Your task to perform on an android device: Go to Android settings Image 0: 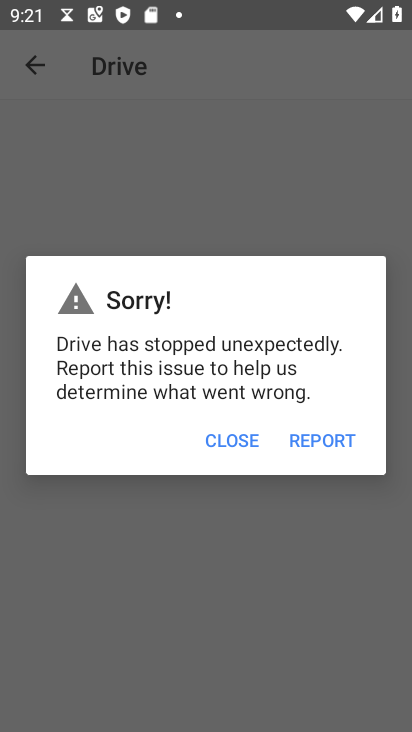
Step 0: press home button
Your task to perform on an android device: Go to Android settings Image 1: 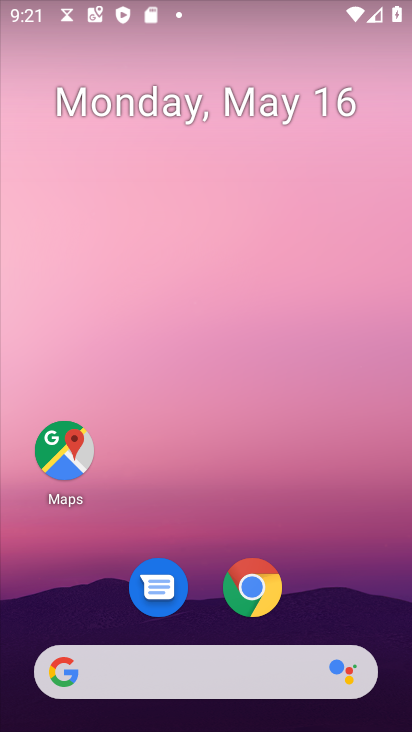
Step 1: drag from (324, 618) to (212, 100)
Your task to perform on an android device: Go to Android settings Image 2: 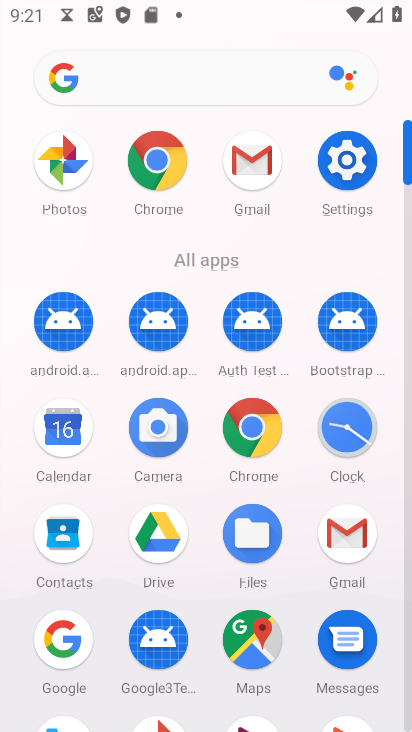
Step 2: click (352, 174)
Your task to perform on an android device: Go to Android settings Image 3: 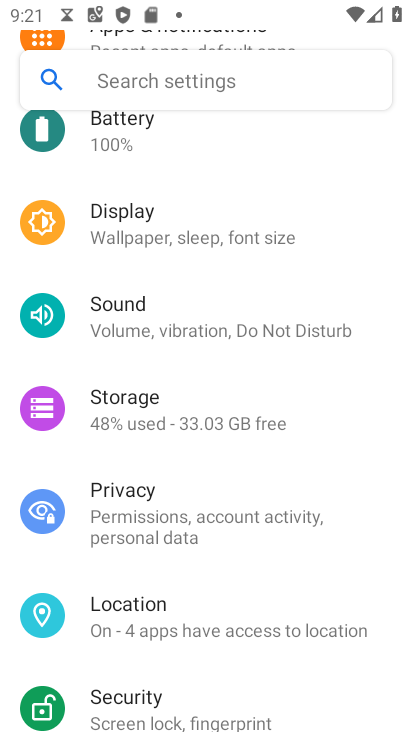
Step 3: task complete